Your task to perform on an android device: open the mobile data screen to see how much data has been used Image 0: 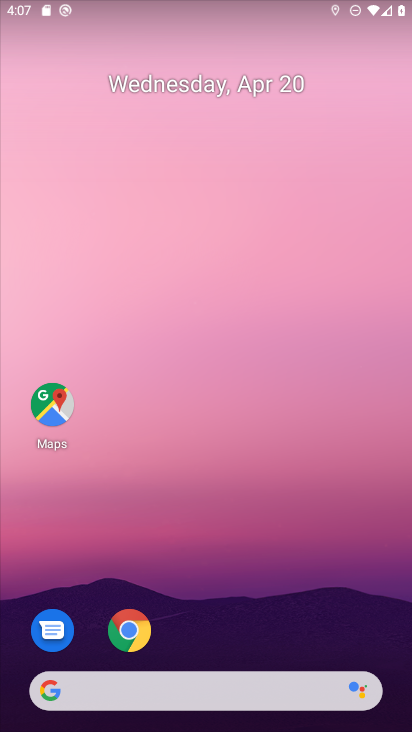
Step 0: drag from (207, 718) to (217, 101)
Your task to perform on an android device: open the mobile data screen to see how much data has been used Image 1: 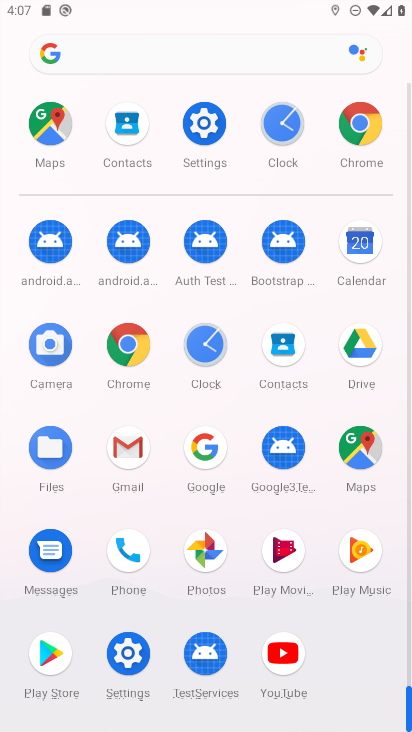
Step 1: click (121, 651)
Your task to perform on an android device: open the mobile data screen to see how much data has been used Image 2: 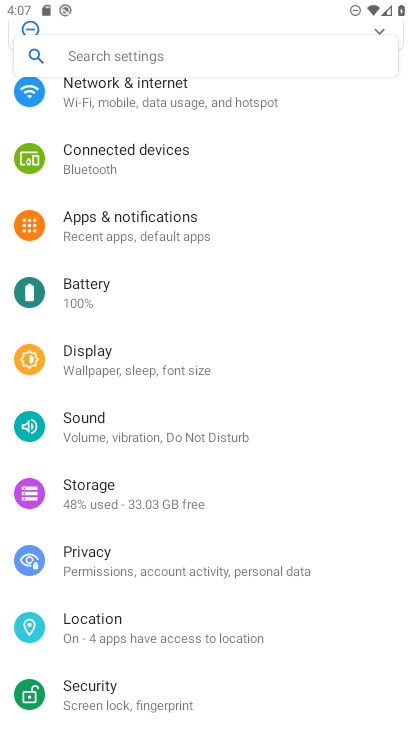
Step 2: drag from (206, 181) to (212, 728)
Your task to perform on an android device: open the mobile data screen to see how much data has been used Image 3: 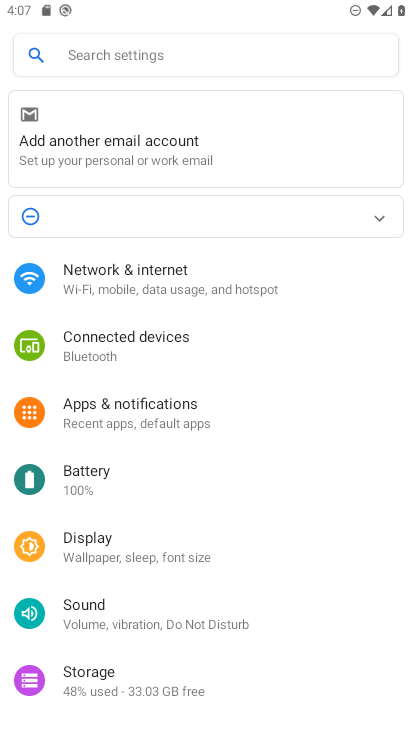
Step 3: click (184, 278)
Your task to perform on an android device: open the mobile data screen to see how much data has been used Image 4: 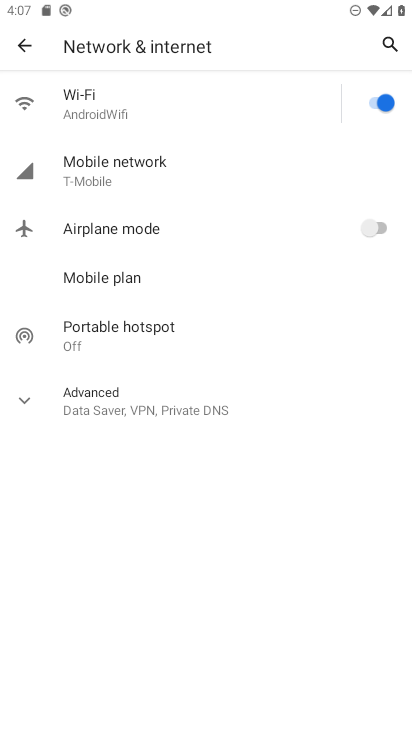
Step 4: click (137, 172)
Your task to perform on an android device: open the mobile data screen to see how much data has been used Image 5: 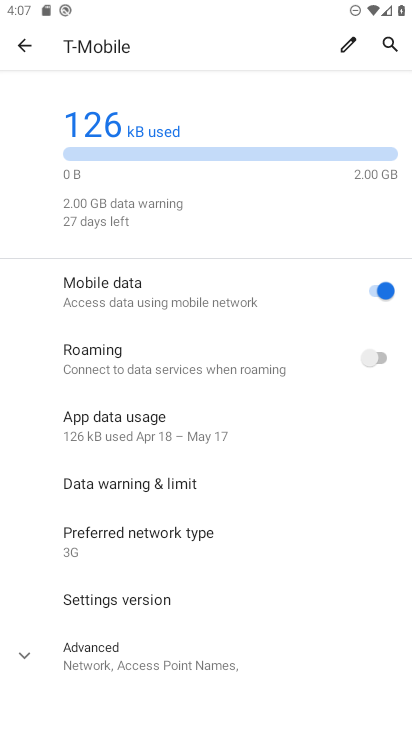
Step 5: click (168, 435)
Your task to perform on an android device: open the mobile data screen to see how much data has been used Image 6: 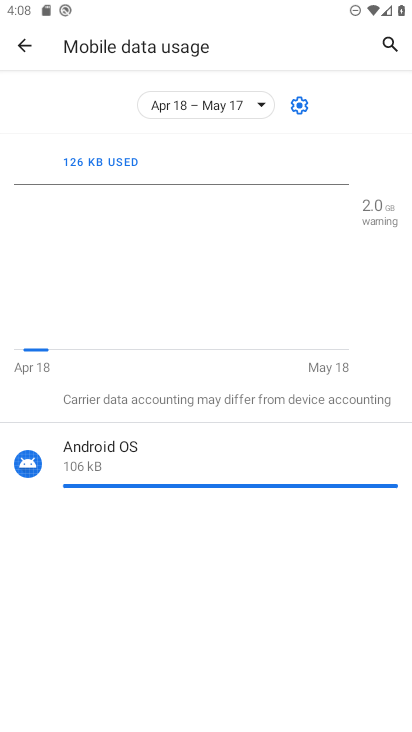
Step 6: task complete